Your task to perform on an android device: Check the weather Image 0: 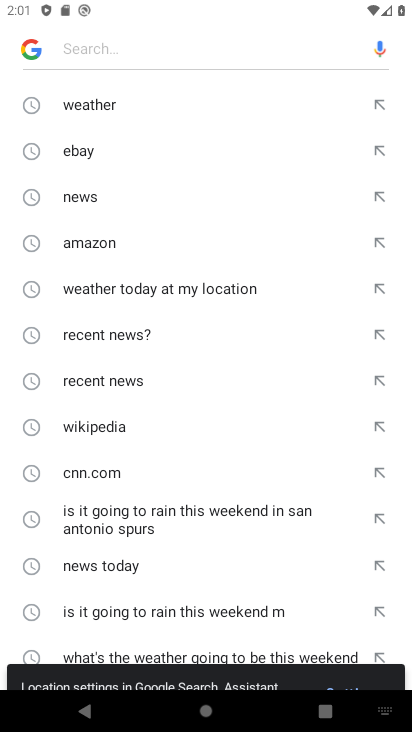
Step 0: press home button
Your task to perform on an android device: Check the weather Image 1: 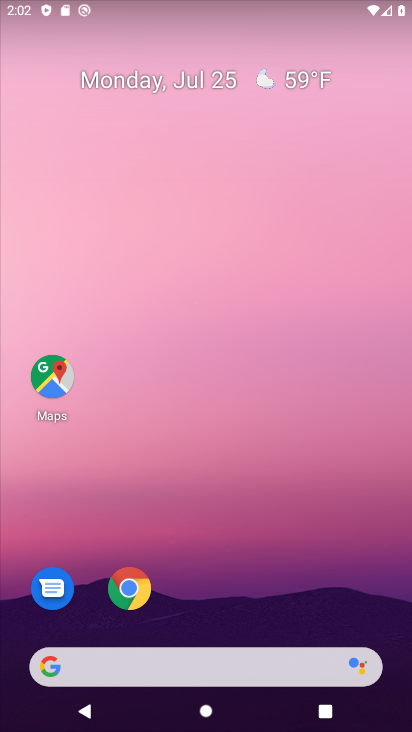
Step 1: drag from (6, 297) to (404, 174)
Your task to perform on an android device: Check the weather Image 2: 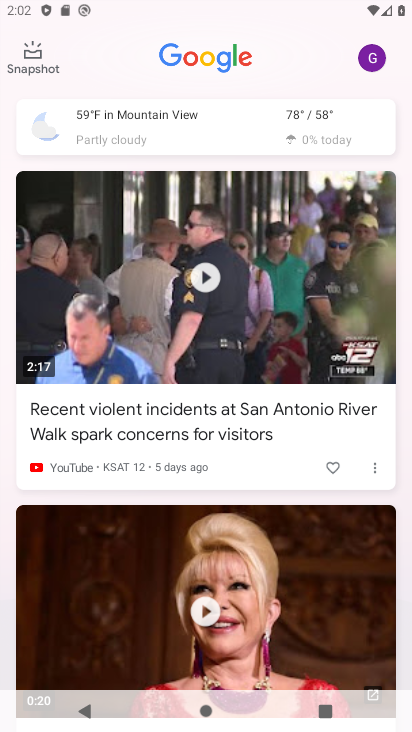
Step 2: click (311, 113)
Your task to perform on an android device: Check the weather Image 3: 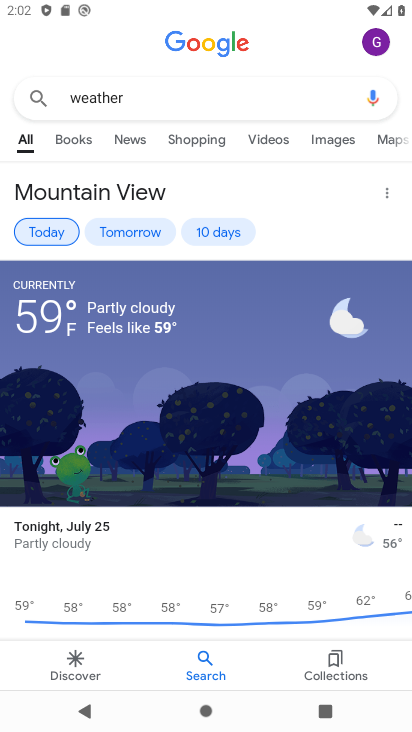
Step 3: task complete